Your task to perform on an android device: show emergency info Image 0: 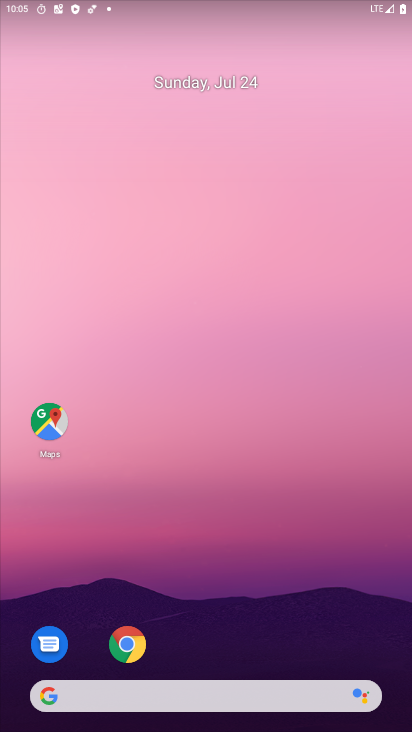
Step 0: drag from (165, 695) to (243, 74)
Your task to perform on an android device: show emergency info Image 1: 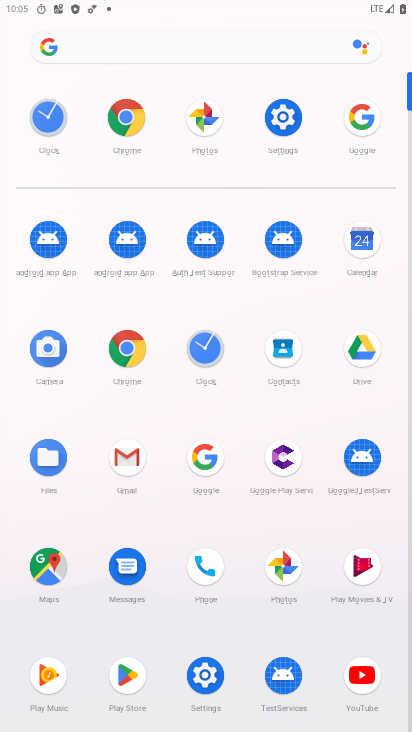
Step 1: click (193, 674)
Your task to perform on an android device: show emergency info Image 2: 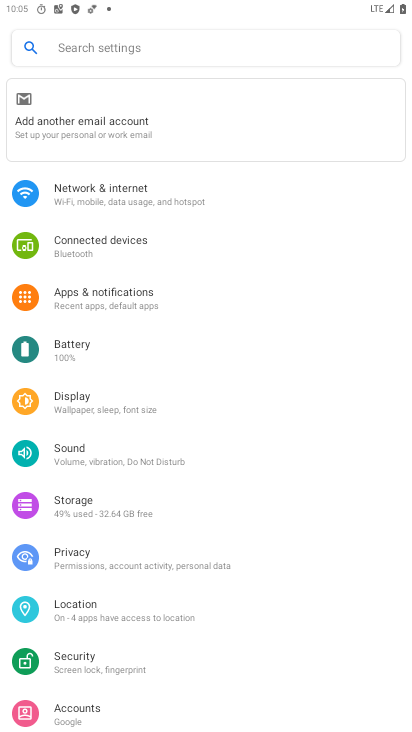
Step 2: drag from (109, 712) to (168, 139)
Your task to perform on an android device: show emergency info Image 3: 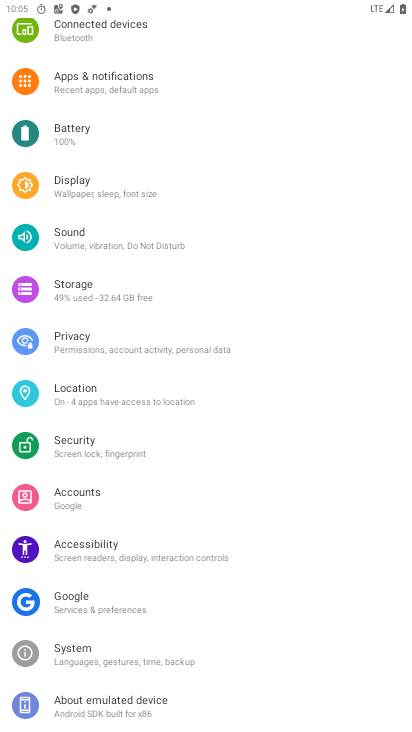
Step 3: click (109, 718)
Your task to perform on an android device: show emergency info Image 4: 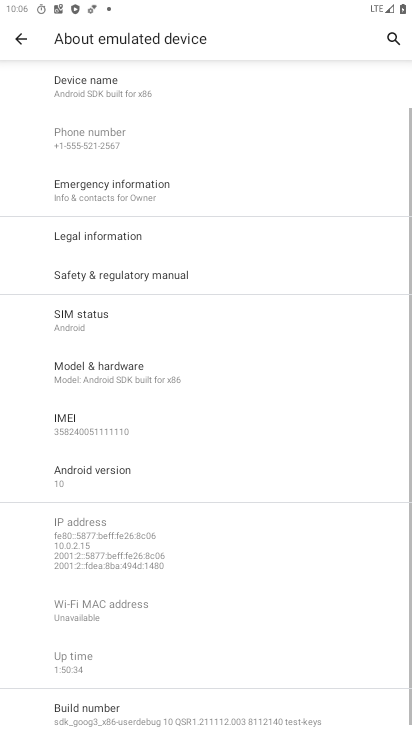
Step 4: click (103, 186)
Your task to perform on an android device: show emergency info Image 5: 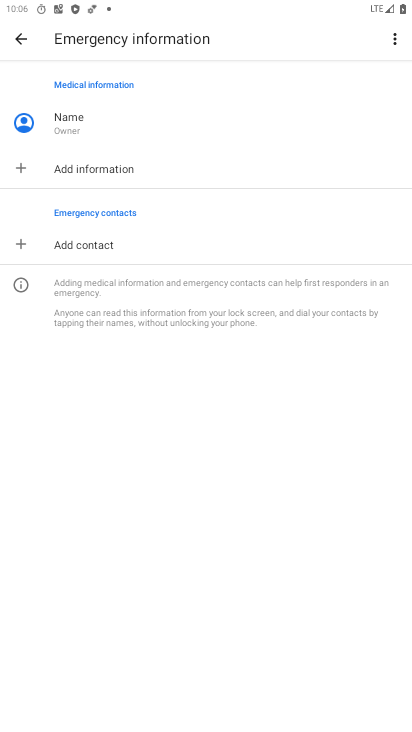
Step 5: task complete